Your task to perform on an android device: Add usb-c to usb-a to the cart on target, then select checkout. Image 0: 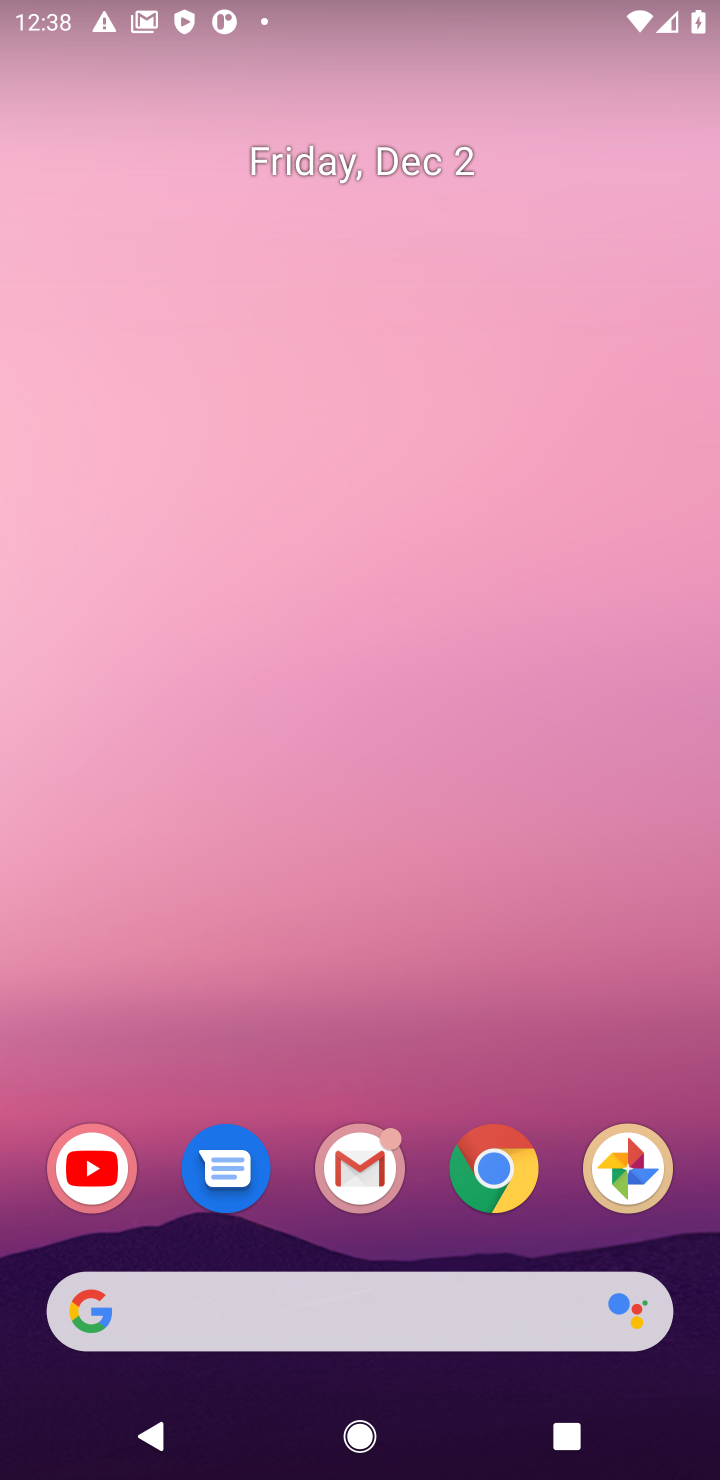
Step 0: click (492, 1177)
Your task to perform on an android device: Add usb-c to usb-a to the cart on target, then select checkout. Image 1: 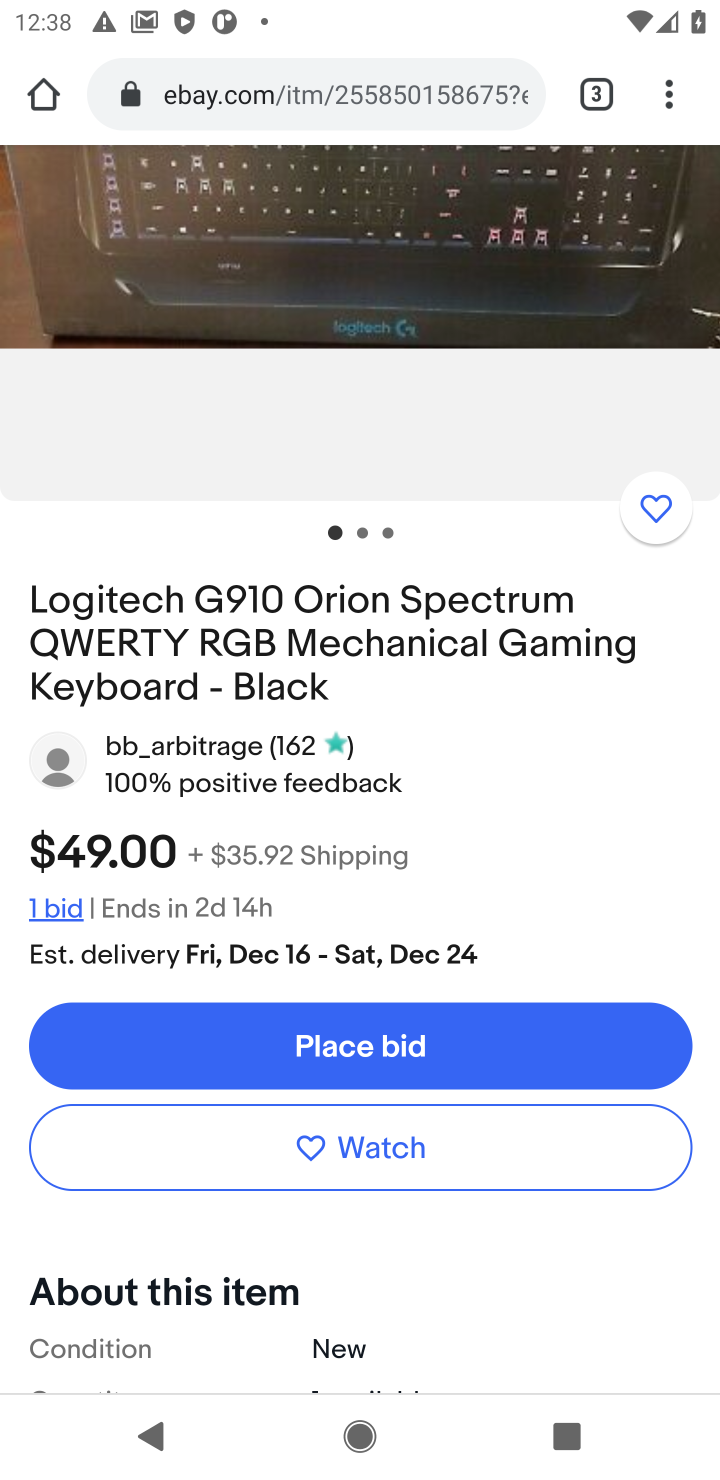
Step 1: click (316, 79)
Your task to perform on an android device: Add usb-c to usb-a to the cart on target, then select checkout. Image 2: 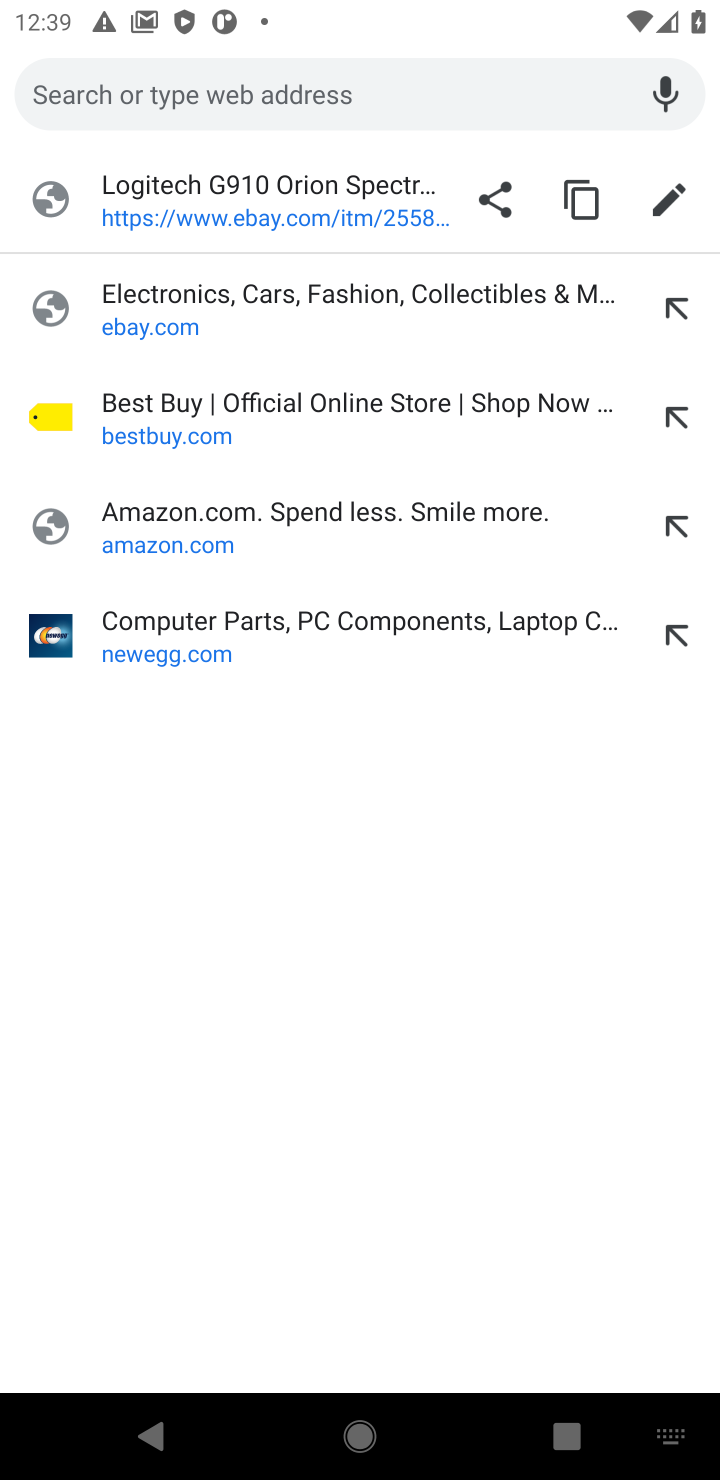
Step 2: type "target.com"
Your task to perform on an android device: Add usb-c to usb-a to the cart on target, then select checkout. Image 3: 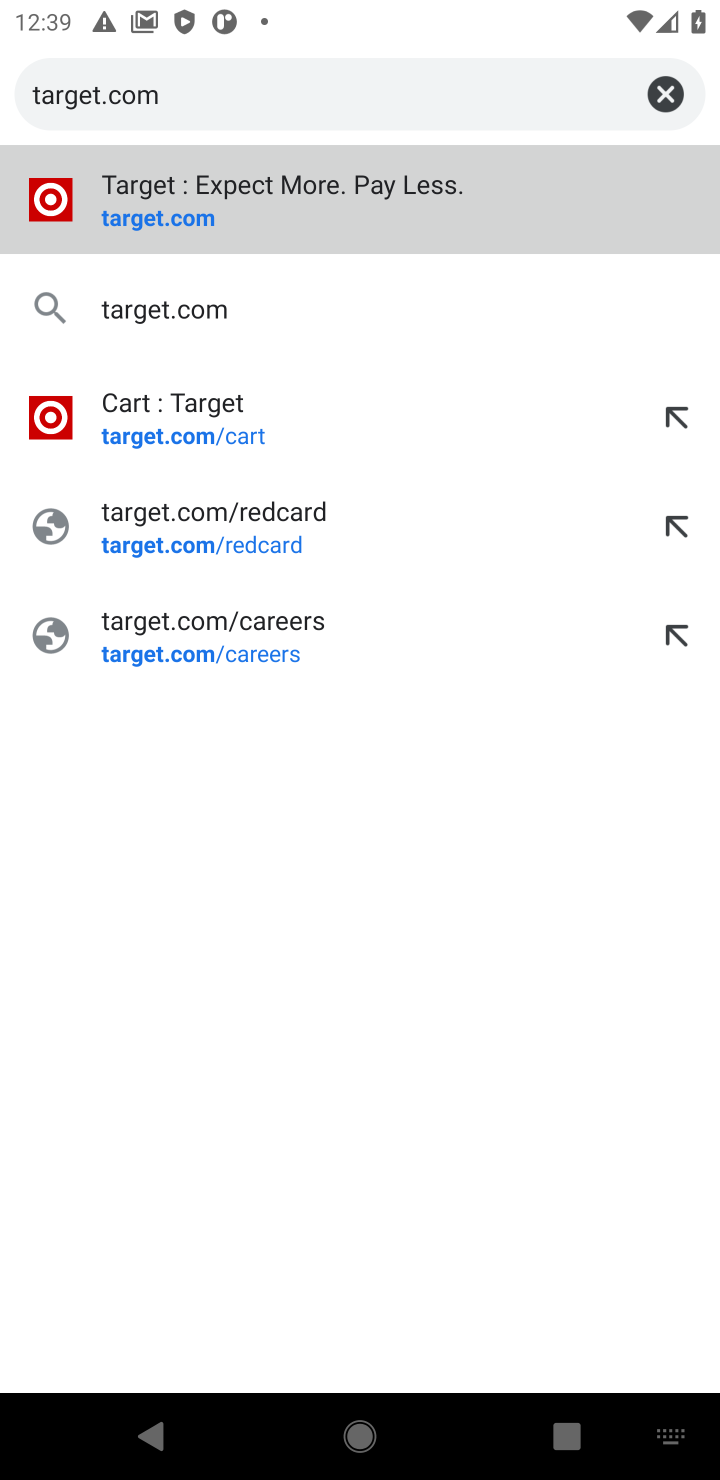
Step 3: click (132, 195)
Your task to perform on an android device: Add usb-c to usb-a to the cart on target, then select checkout. Image 4: 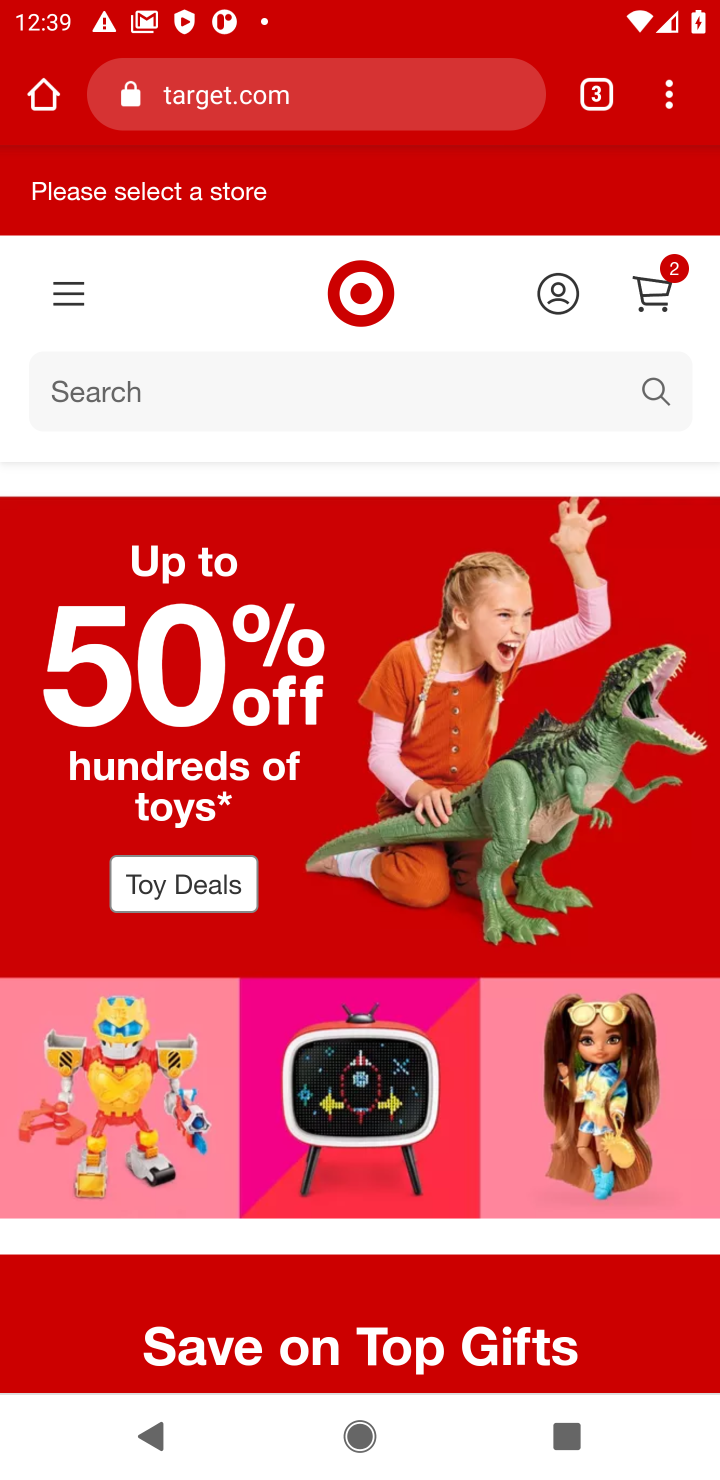
Step 4: click (74, 380)
Your task to perform on an android device: Add usb-c to usb-a to the cart on target, then select checkout. Image 5: 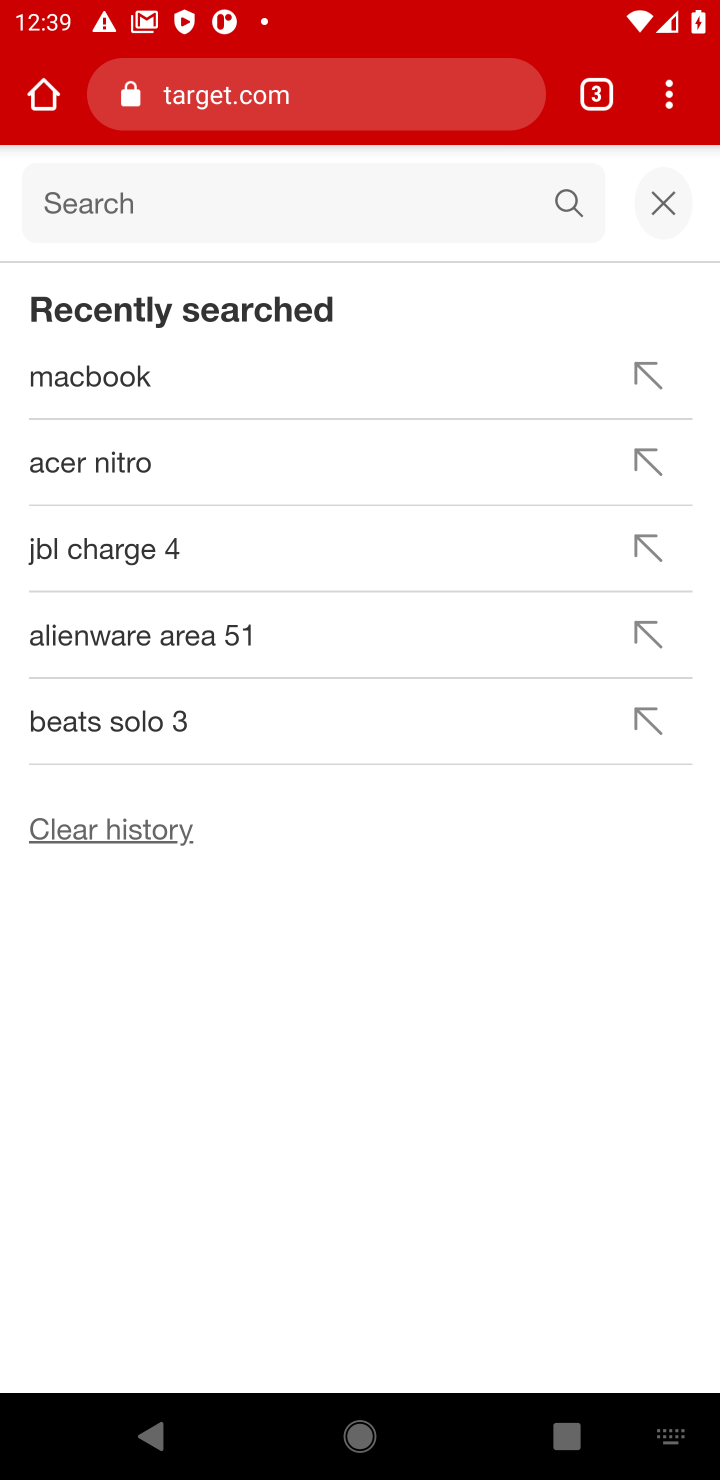
Step 5: type "usb-c to usb-a "
Your task to perform on an android device: Add usb-c to usb-a to the cart on target, then select checkout. Image 6: 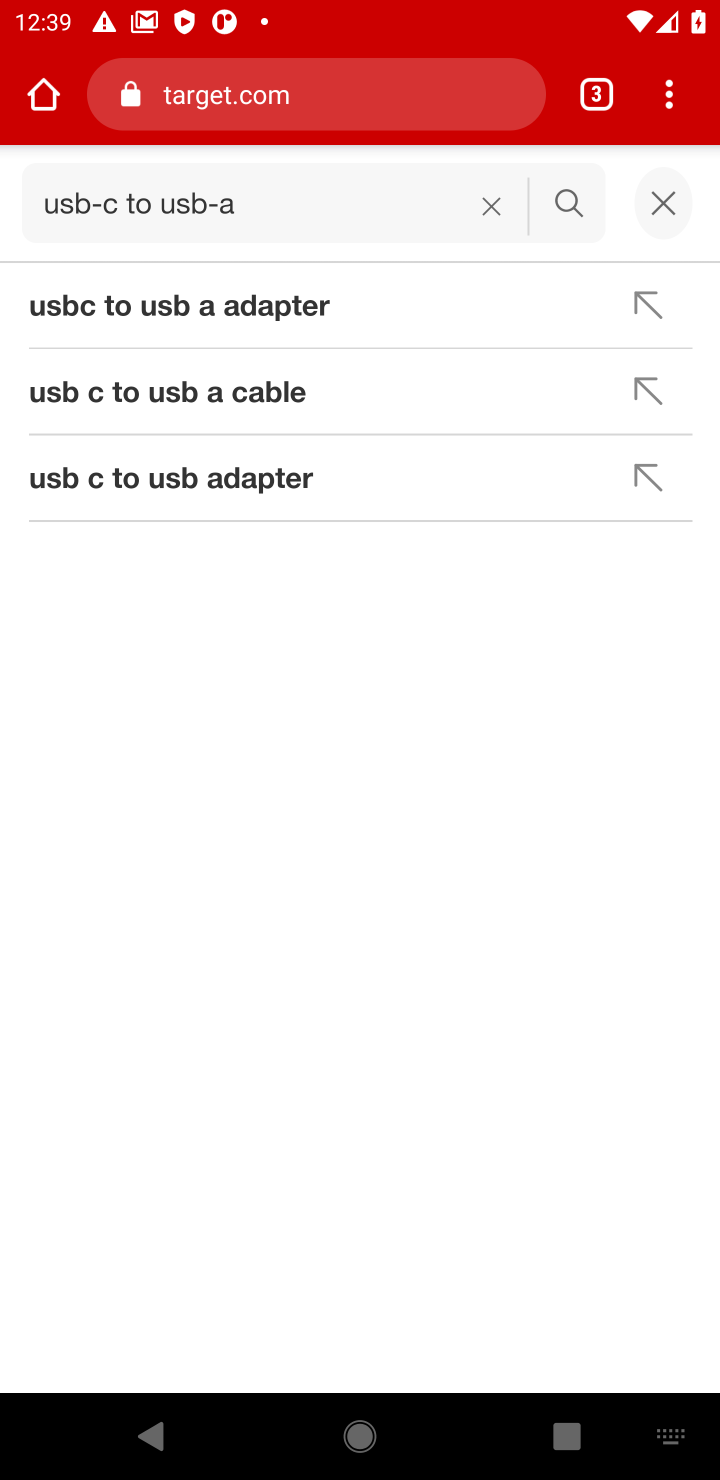
Step 6: click (561, 198)
Your task to perform on an android device: Add usb-c to usb-a to the cart on target, then select checkout. Image 7: 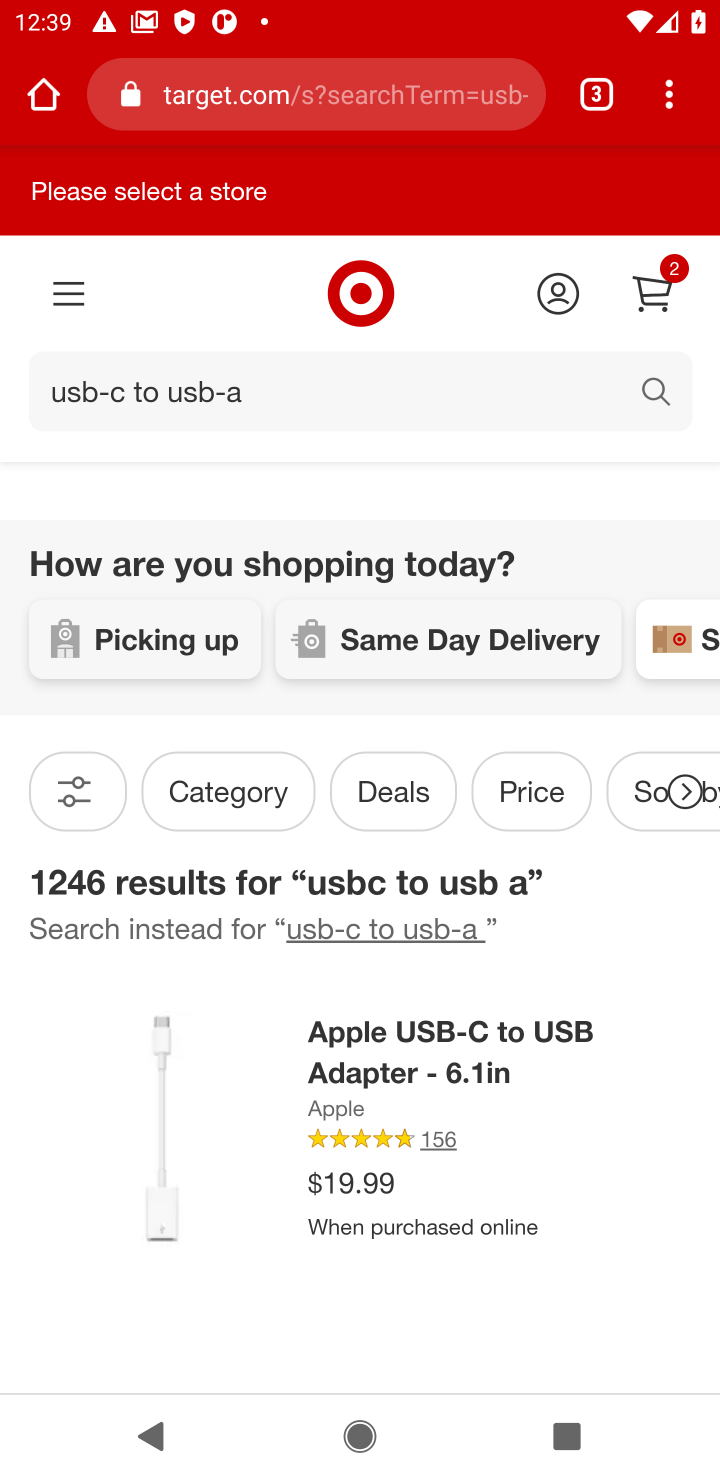
Step 7: drag from (210, 1013) to (183, 440)
Your task to perform on an android device: Add usb-c to usb-a to the cart on target, then select checkout. Image 8: 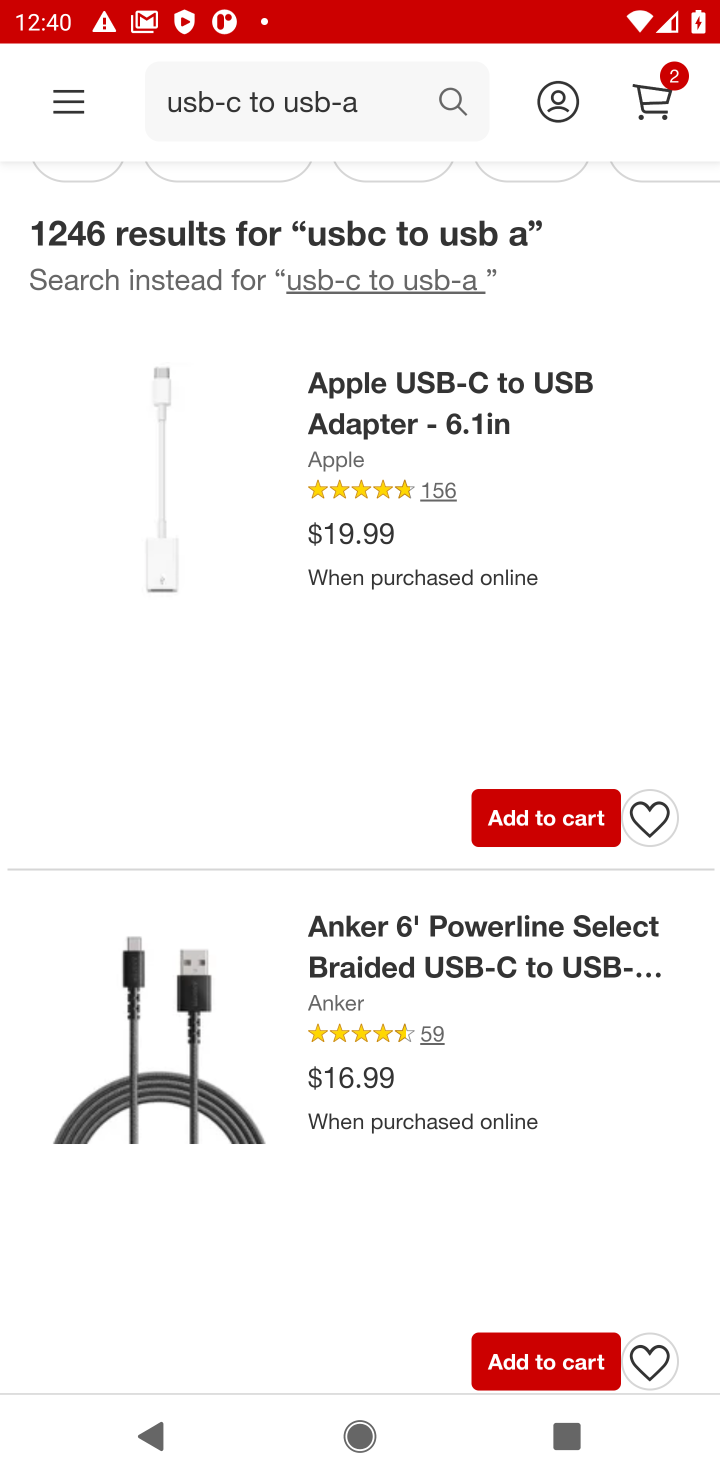
Step 8: click (411, 971)
Your task to perform on an android device: Add usb-c to usb-a to the cart on target, then select checkout. Image 9: 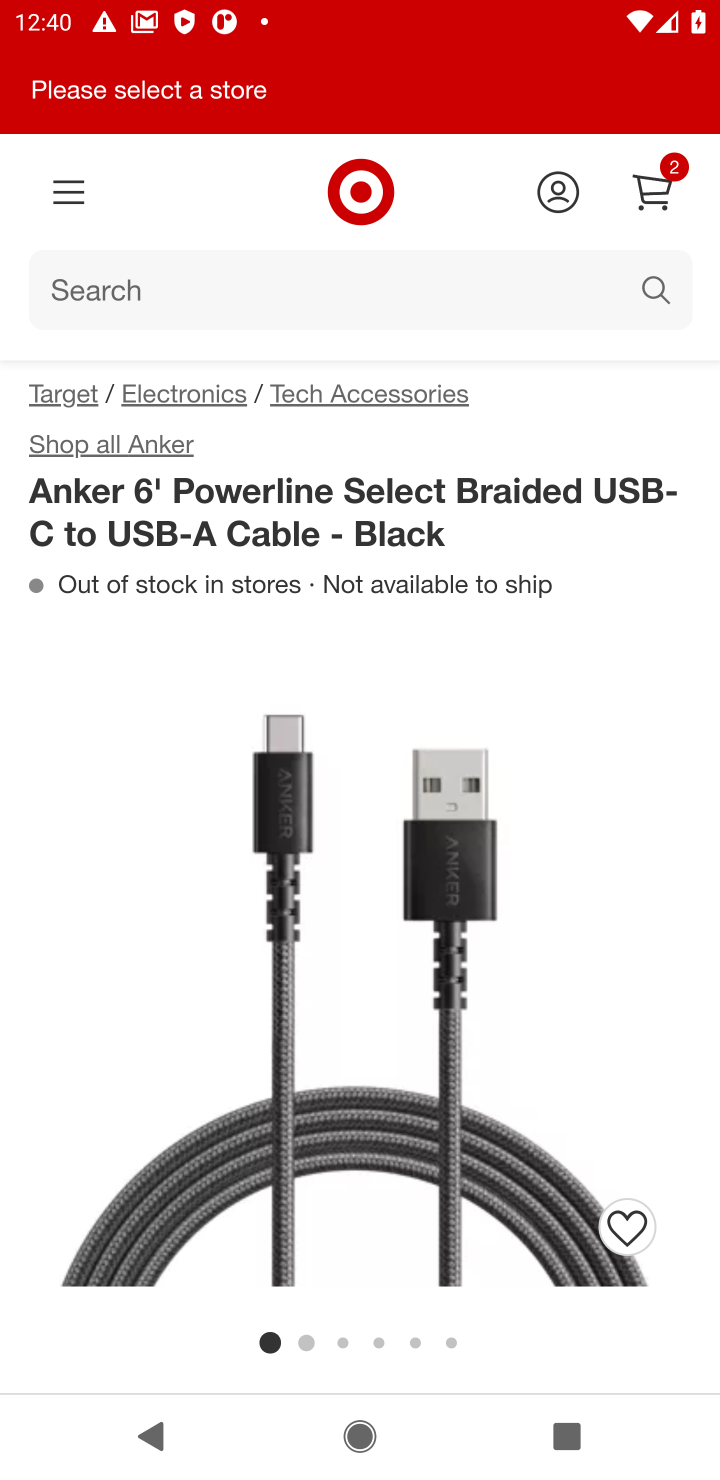
Step 9: drag from (375, 1096) to (314, 435)
Your task to perform on an android device: Add usb-c to usb-a to the cart on target, then select checkout. Image 10: 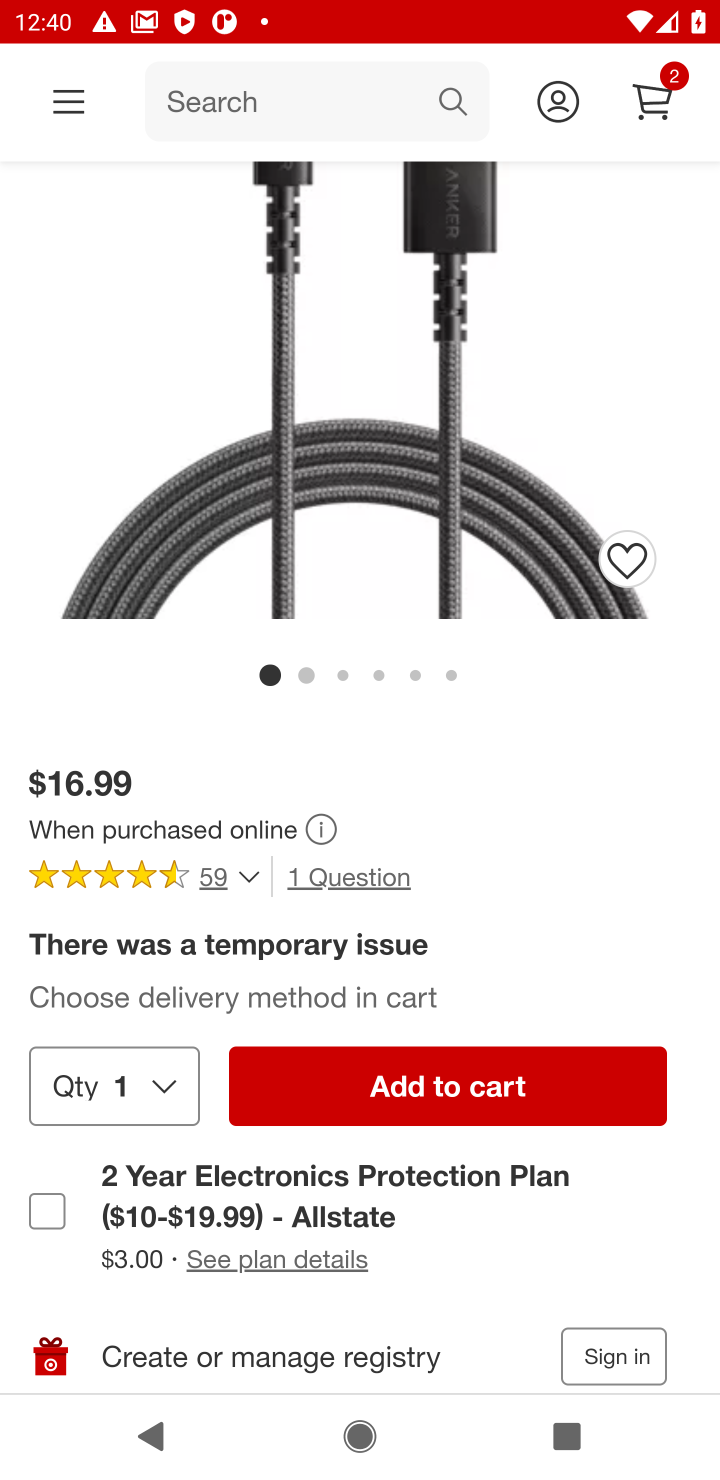
Step 10: click (456, 1099)
Your task to perform on an android device: Add usb-c to usb-a to the cart on target, then select checkout. Image 11: 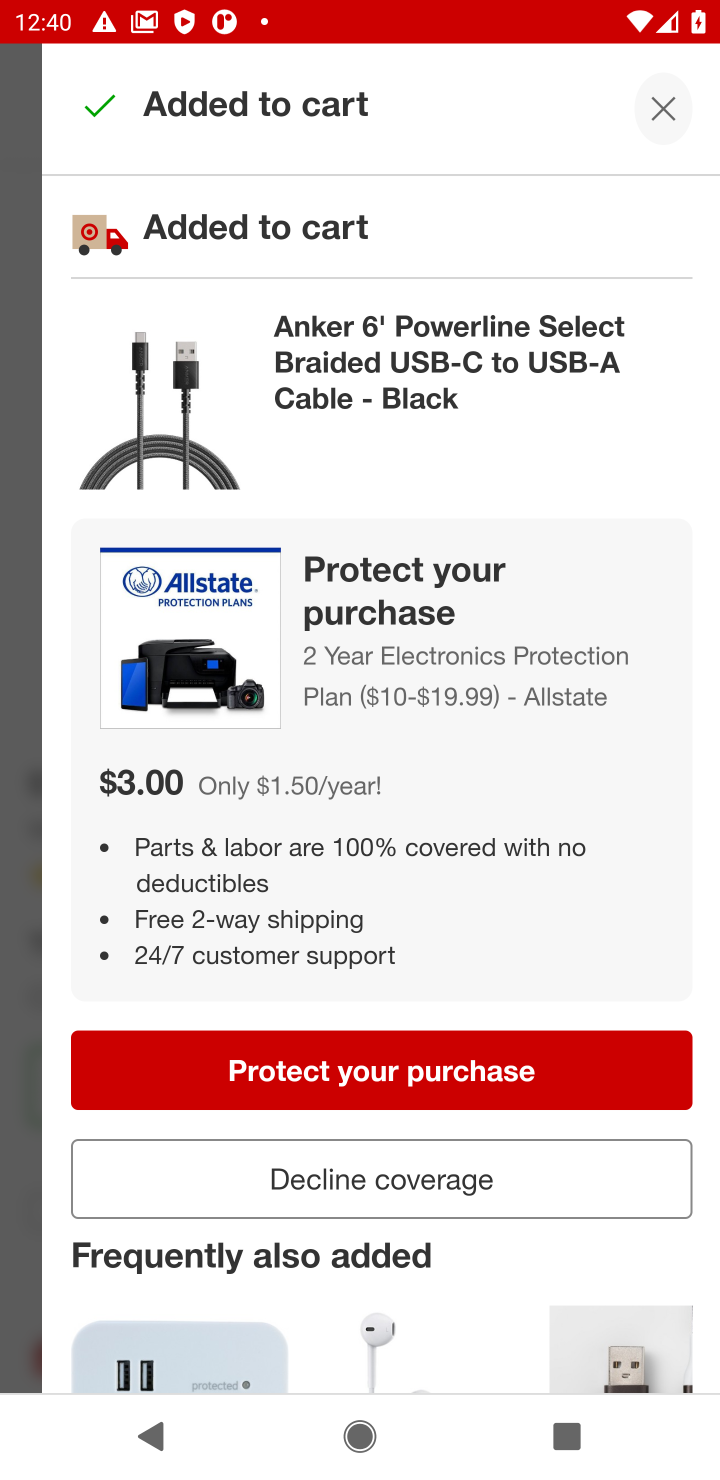
Step 11: click (661, 125)
Your task to perform on an android device: Add usb-c to usb-a to the cart on target, then select checkout. Image 12: 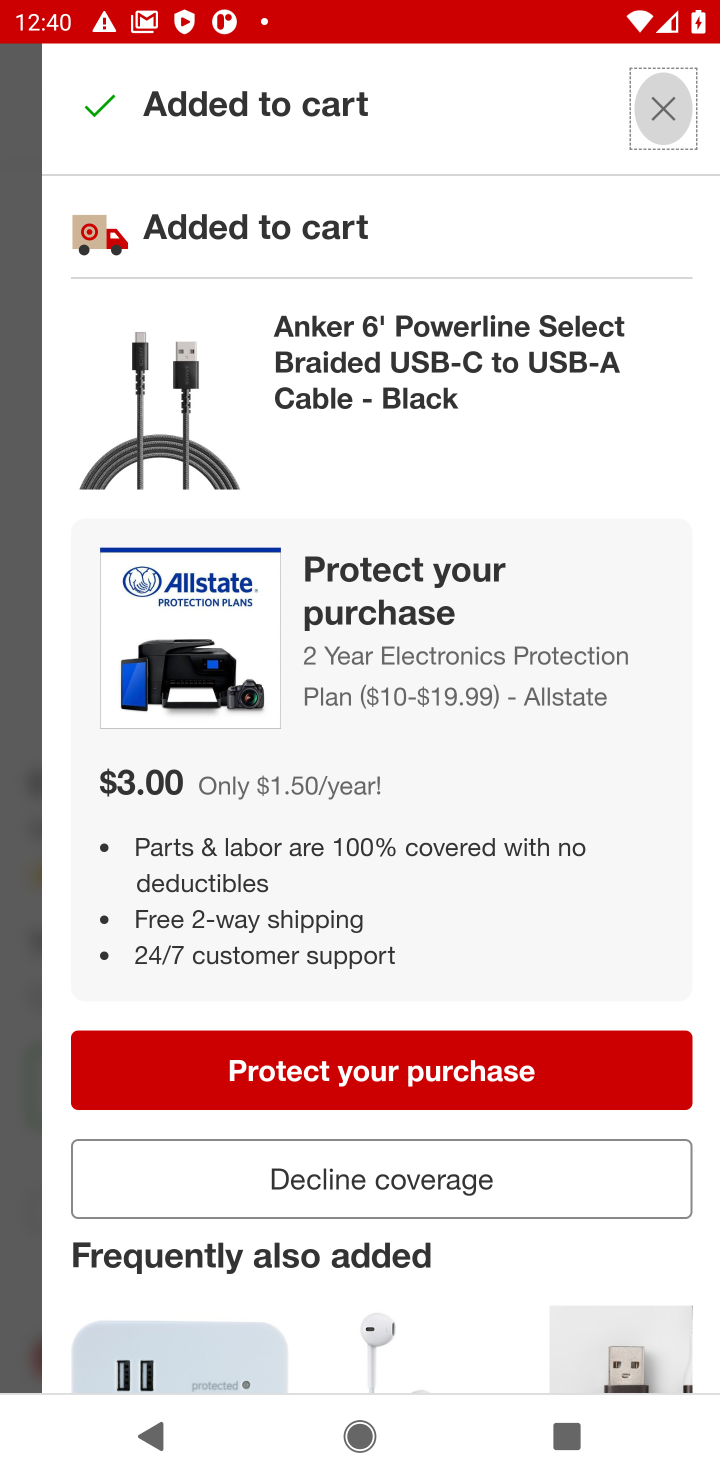
Step 12: click (668, 114)
Your task to perform on an android device: Add usb-c to usb-a to the cart on target, then select checkout. Image 13: 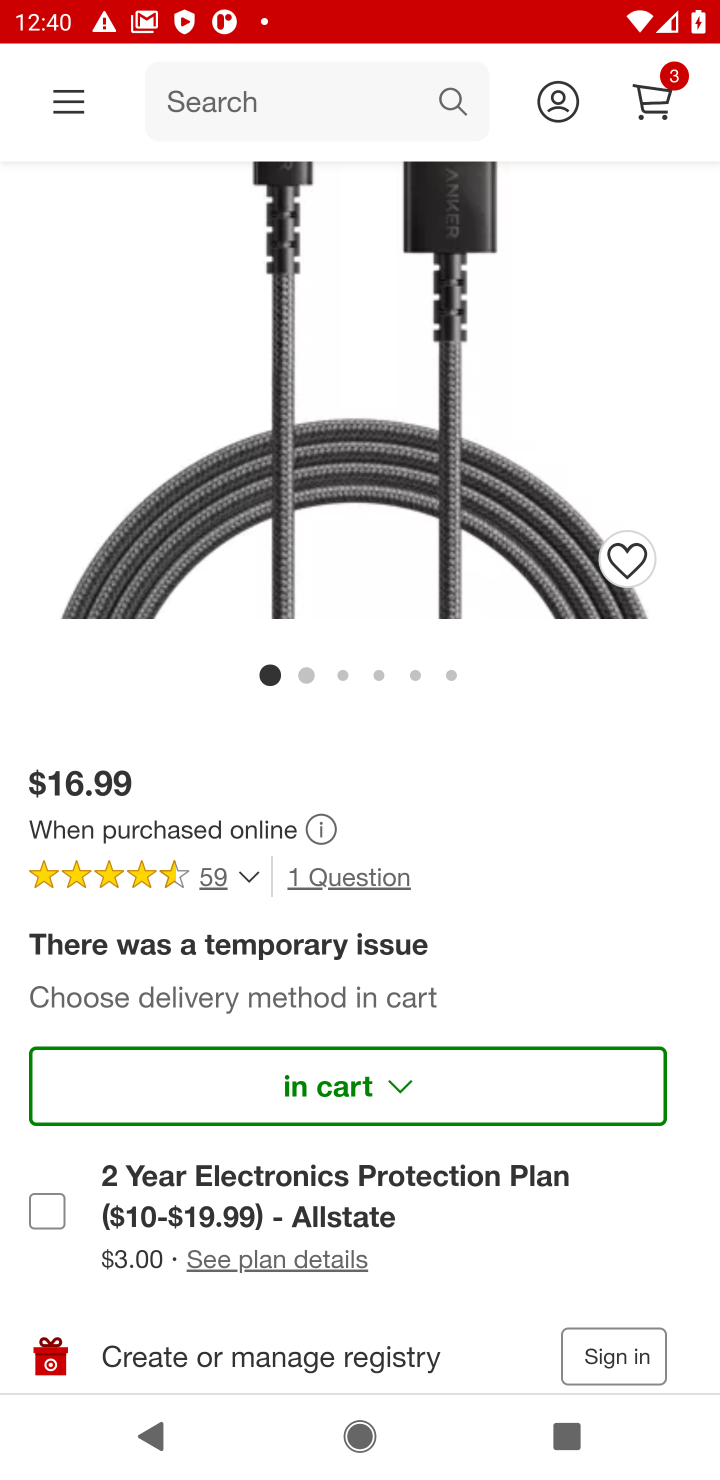
Step 13: click (657, 106)
Your task to perform on an android device: Add usb-c to usb-a to the cart on target, then select checkout. Image 14: 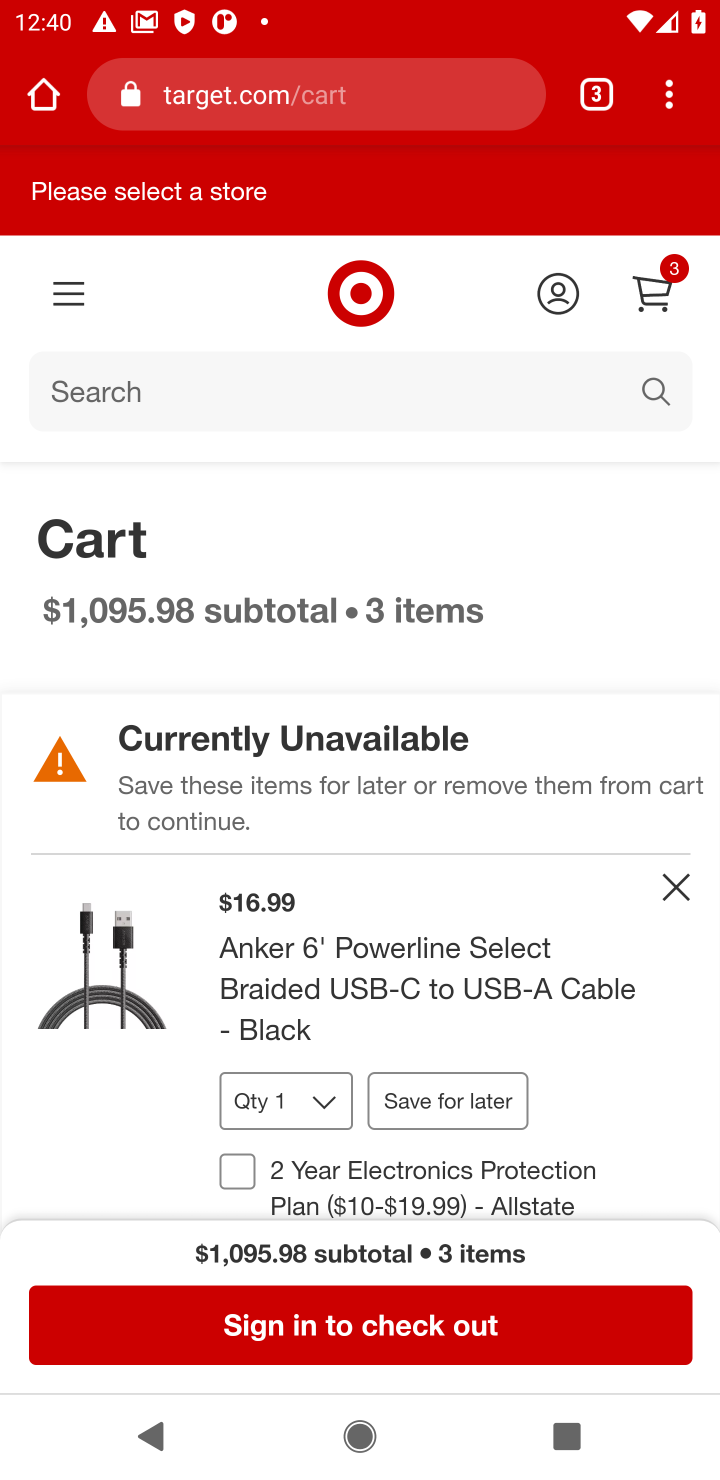
Step 14: click (354, 1332)
Your task to perform on an android device: Add usb-c to usb-a to the cart on target, then select checkout. Image 15: 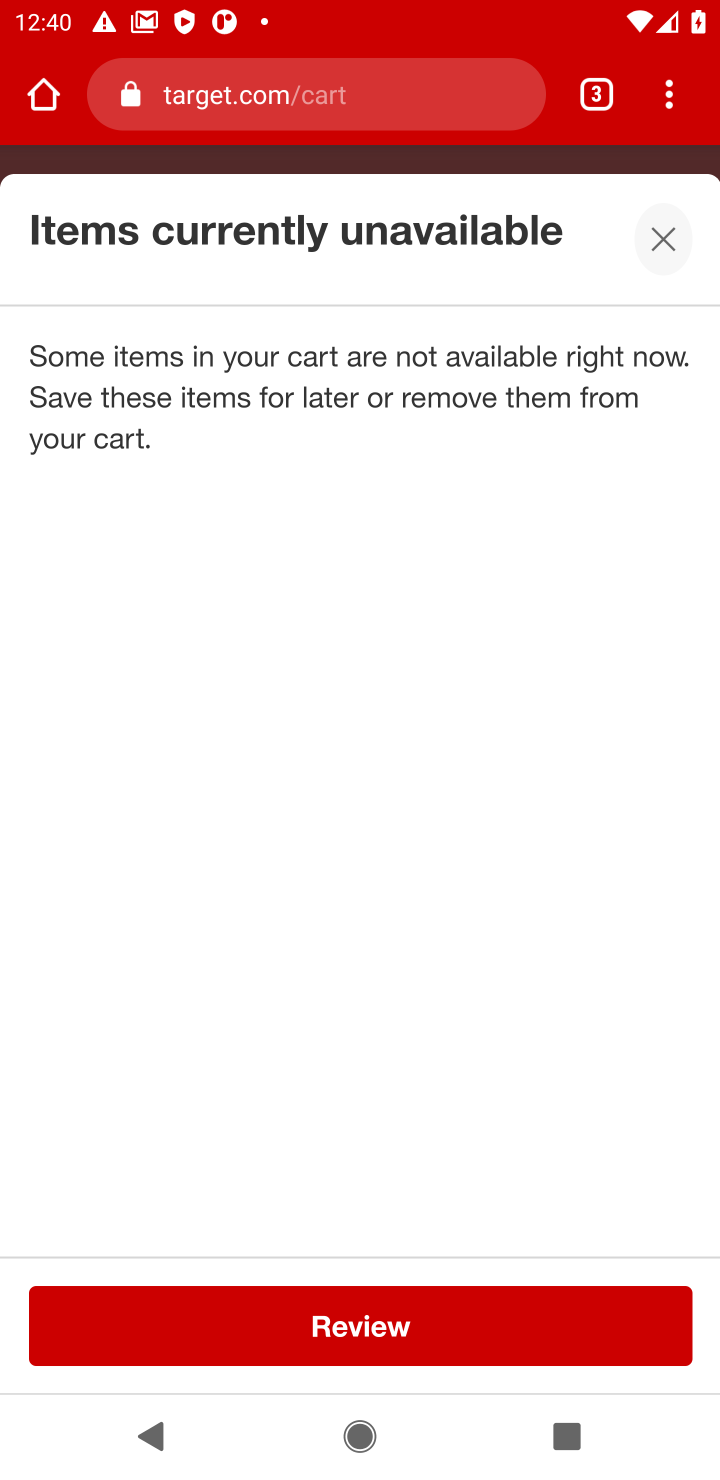
Step 15: task complete